Your task to perform on an android device: see tabs open on other devices in the chrome app Image 0: 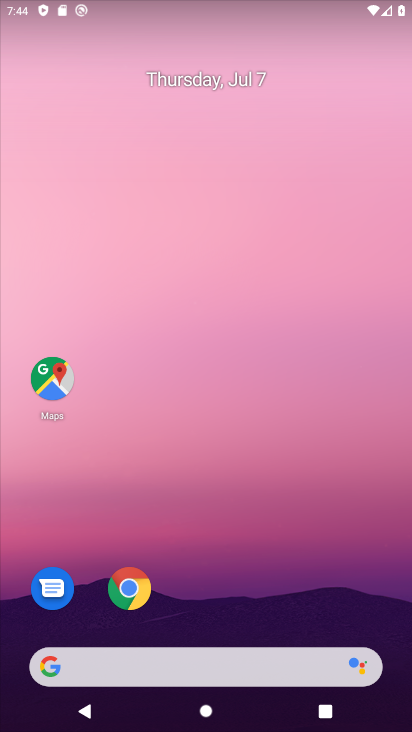
Step 0: click (126, 587)
Your task to perform on an android device: see tabs open on other devices in the chrome app Image 1: 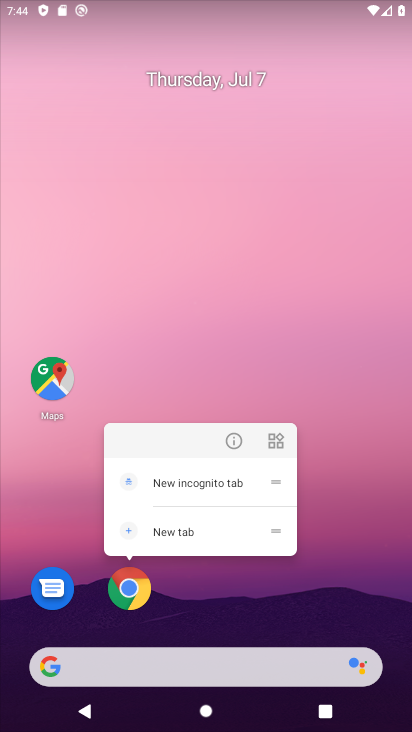
Step 1: click (127, 588)
Your task to perform on an android device: see tabs open on other devices in the chrome app Image 2: 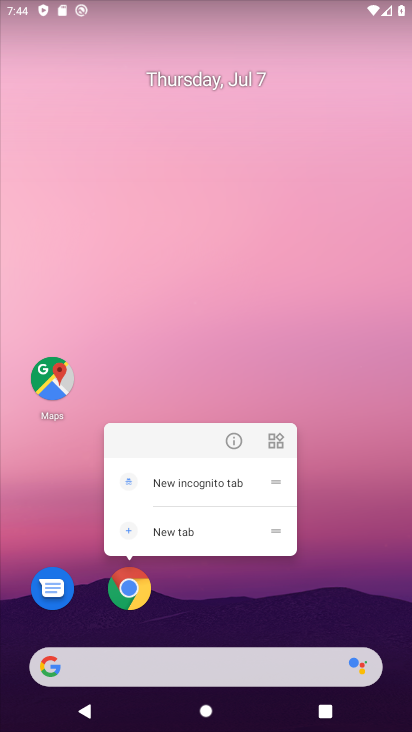
Step 2: click (126, 595)
Your task to perform on an android device: see tabs open on other devices in the chrome app Image 3: 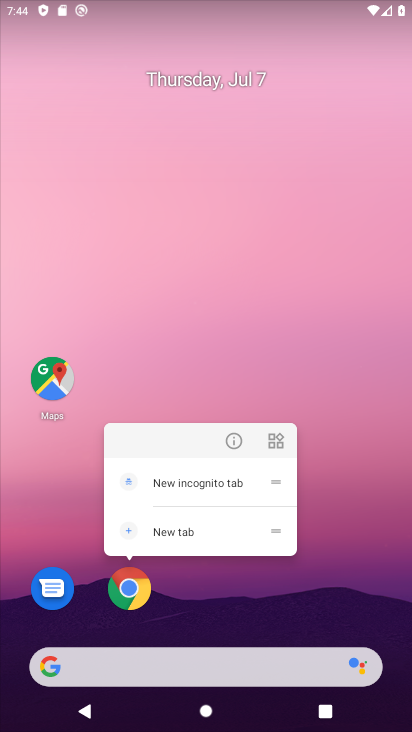
Step 3: click (129, 594)
Your task to perform on an android device: see tabs open on other devices in the chrome app Image 4: 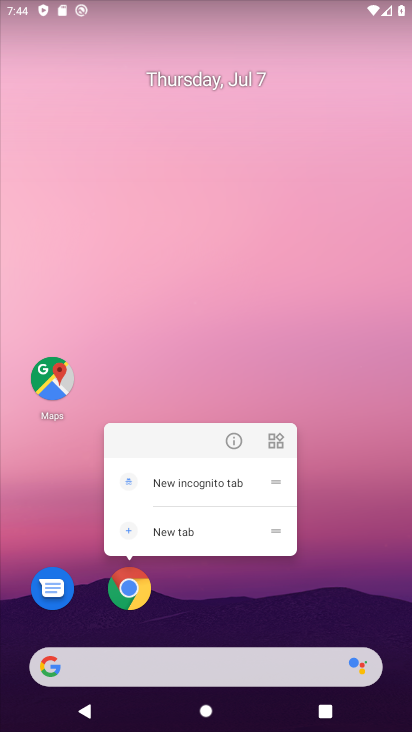
Step 4: click (134, 587)
Your task to perform on an android device: see tabs open on other devices in the chrome app Image 5: 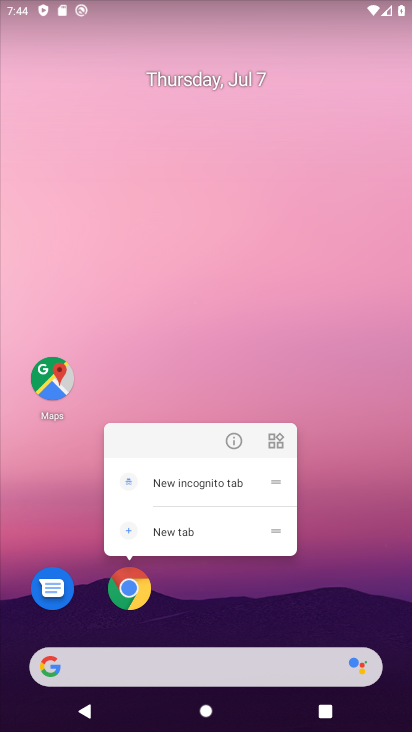
Step 5: click (130, 598)
Your task to perform on an android device: see tabs open on other devices in the chrome app Image 6: 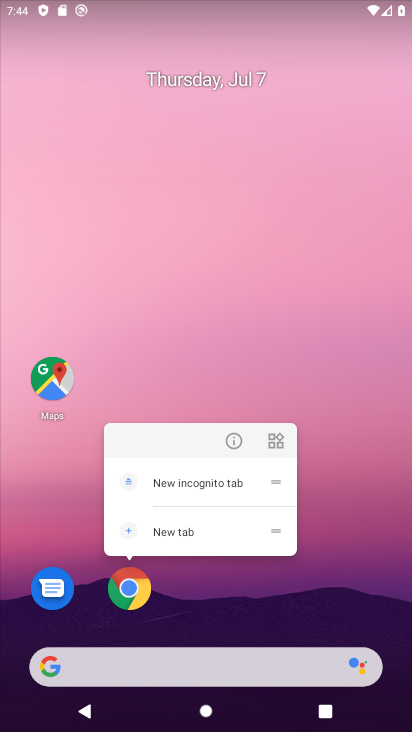
Step 6: click (127, 582)
Your task to perform on an android device: see tabs open on other devices in the chrome app Image 7: 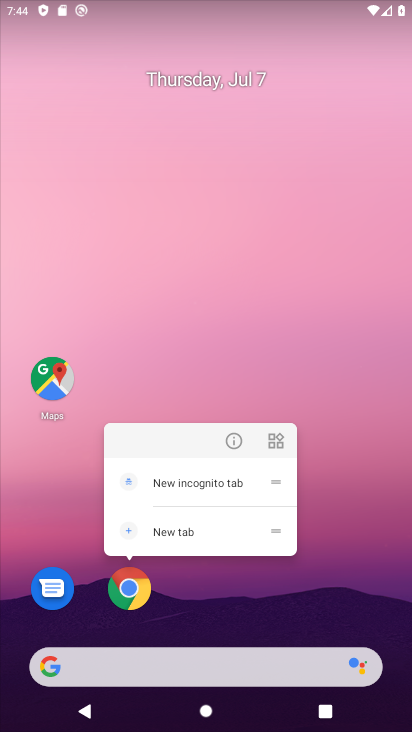
Step 7: click (129, 588)
Your task to perform on an android device: see tabs open on other devices in the chrome app Image 8: 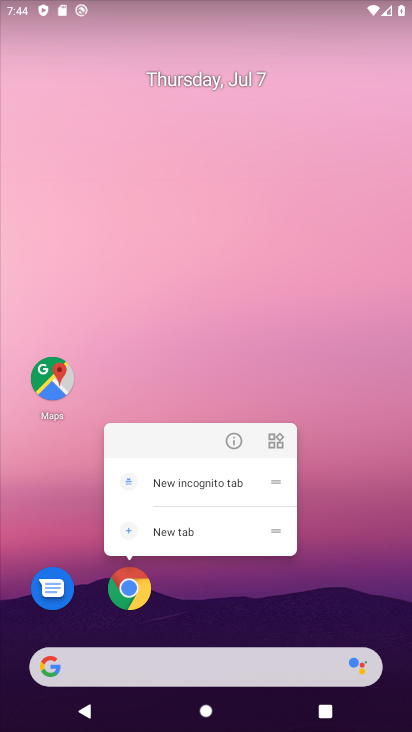
Step 8: task complete